Your task to perform on an android device: Clear all items from cart on walmart.com. Add "usb-c" to the cart on walmart.com, then select checkout. Image 0: 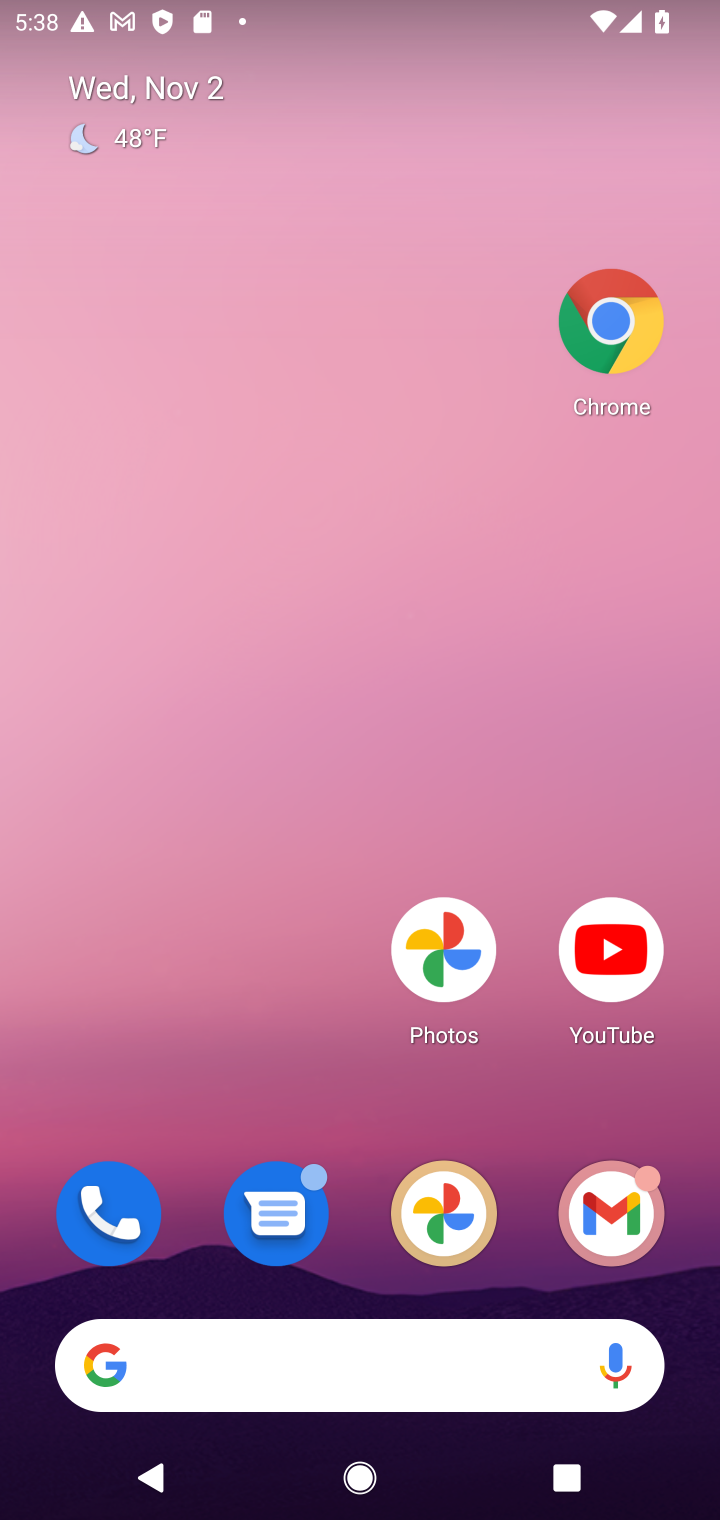
Step 0: drag from (322, 1271) to (333, 640)
Your task to perform on an android device: Clear all items from cart on walmart.com. Add "usb-c" to the cart on walmart.com, then select checkout. Image 1: 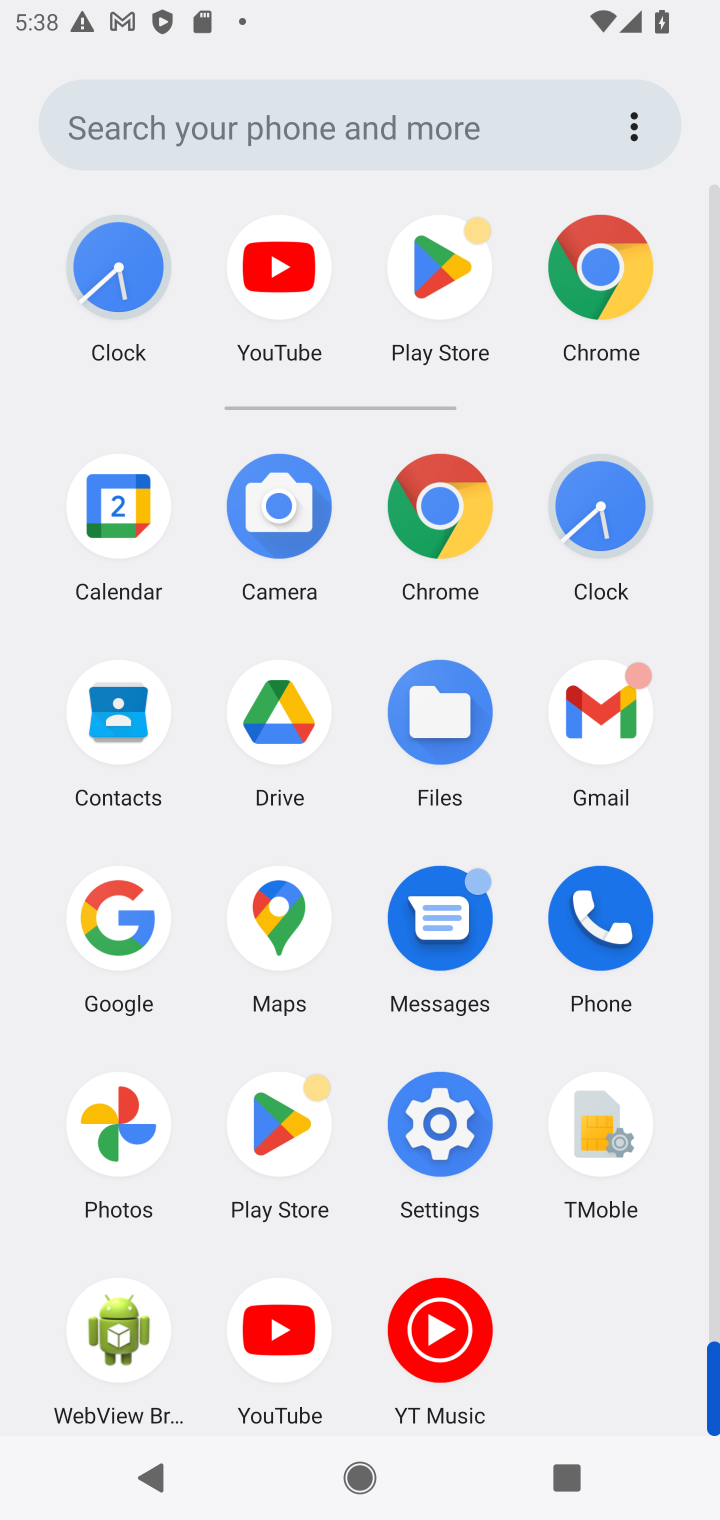
Step 1: click (147, 915)
Your task to perform on an android device: Clear all items from cart on walmart.com. Add "usb-c" to the cart on walmart.com, then select checkout. Image 2: 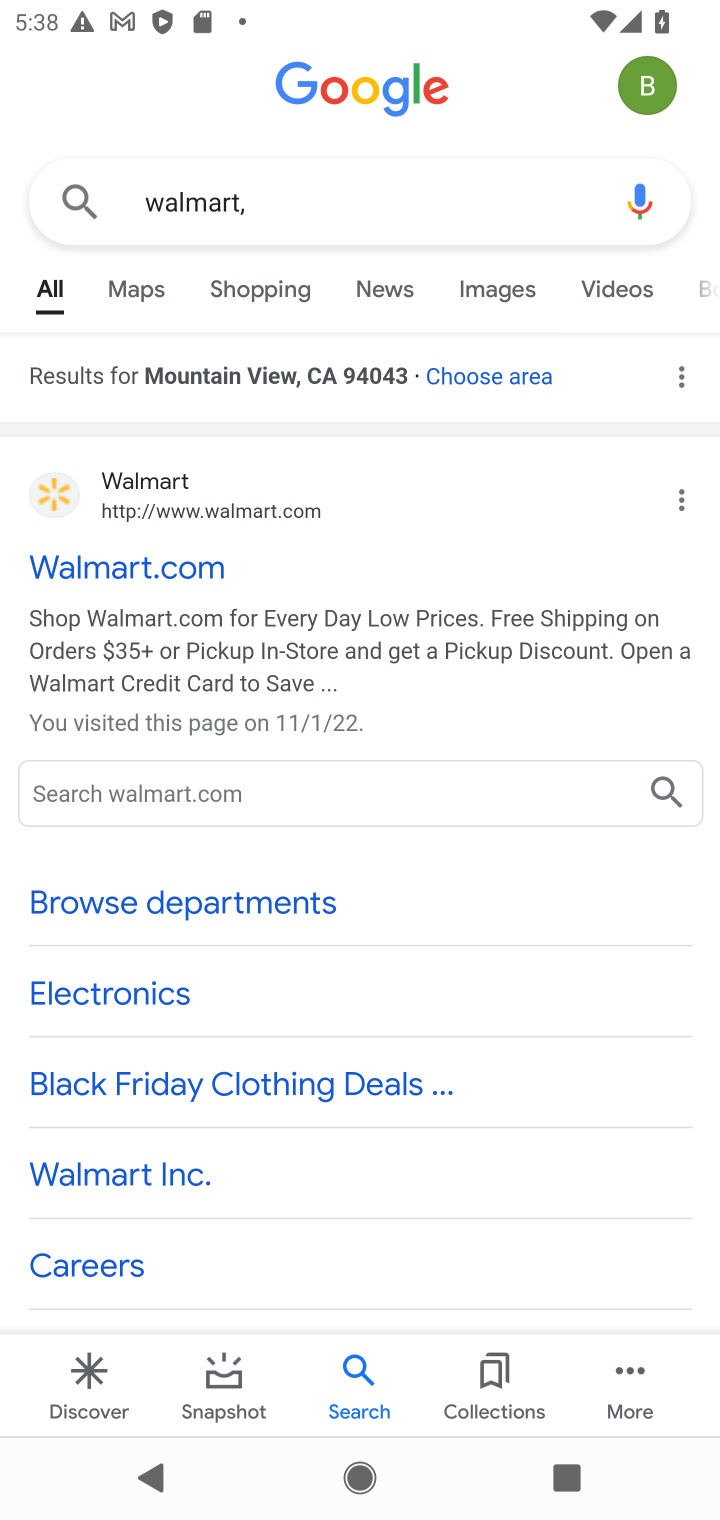
Step 2: click (193, 546)
Your task to perform on an android device: Clear all items from cart on walmart.com. Add "usb-c" to the cart on walmart.com, then select checkout. Image 3: 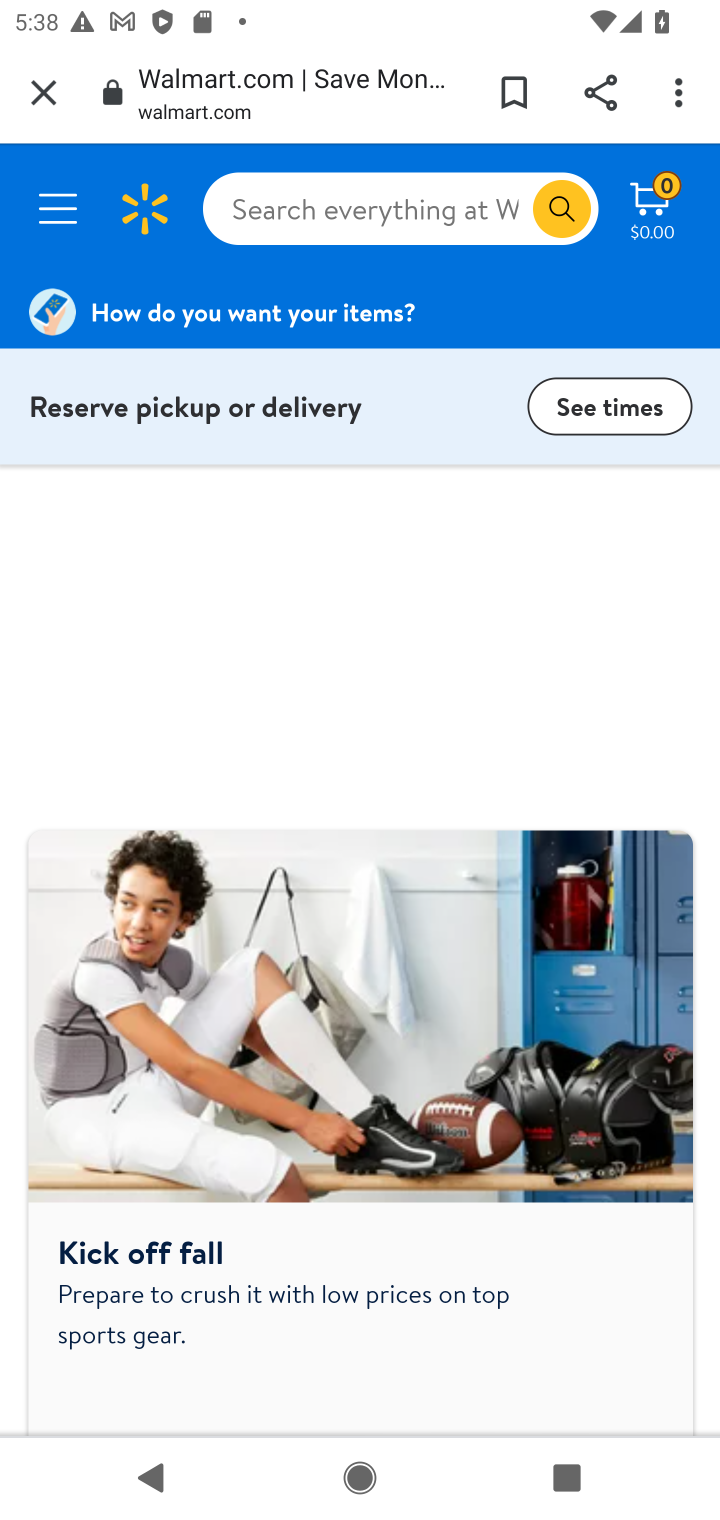
Step 3: click (373, 204)
Your task to perform on an android device: Clear all items from cart on walmart.com. Add "usb-c" to the cart on walmart.com, then select checkout. Image 4: 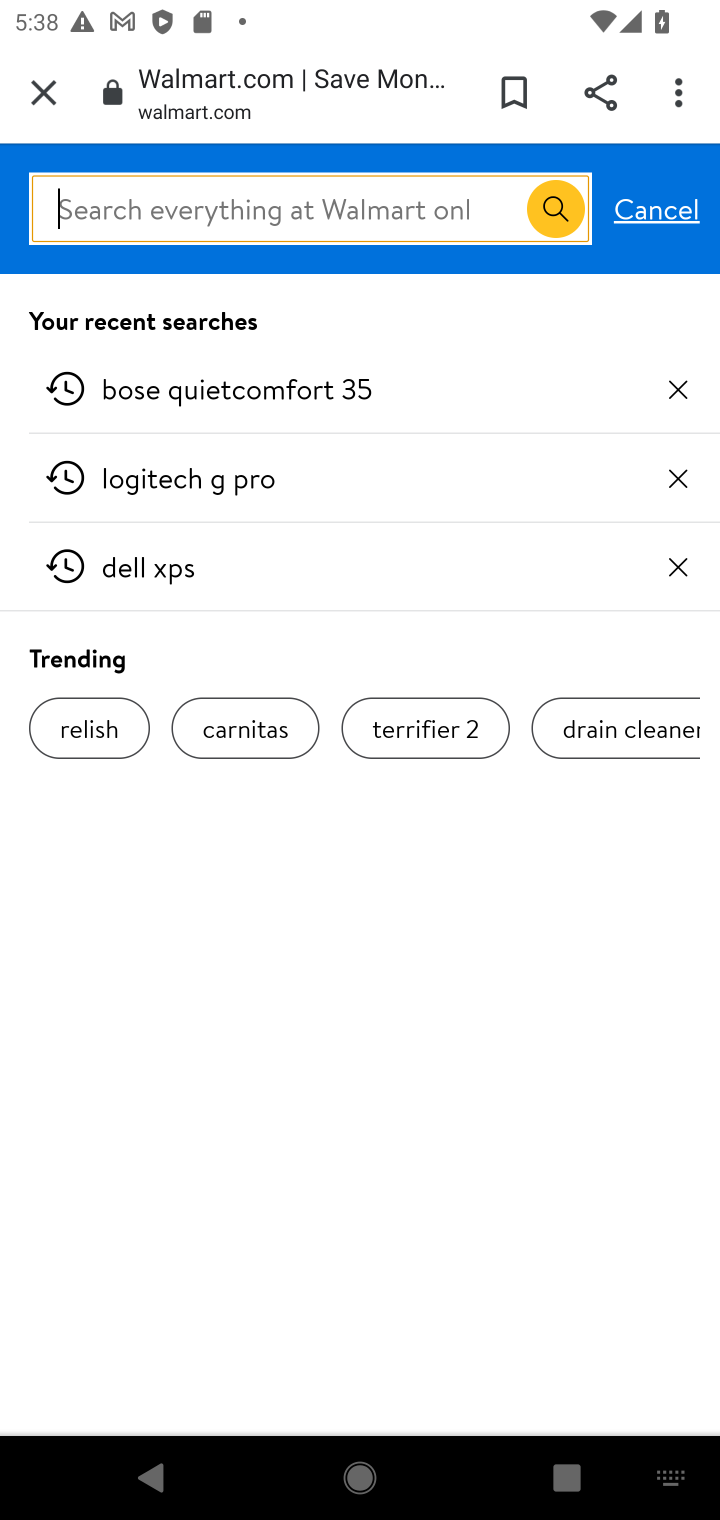
Step 4: type "walmart.com"
Your task to perform on an android device: Clear all items from cart on walmart.com. Add "usb-c" to the cart on walmart.com, then select checkout. Image 5: 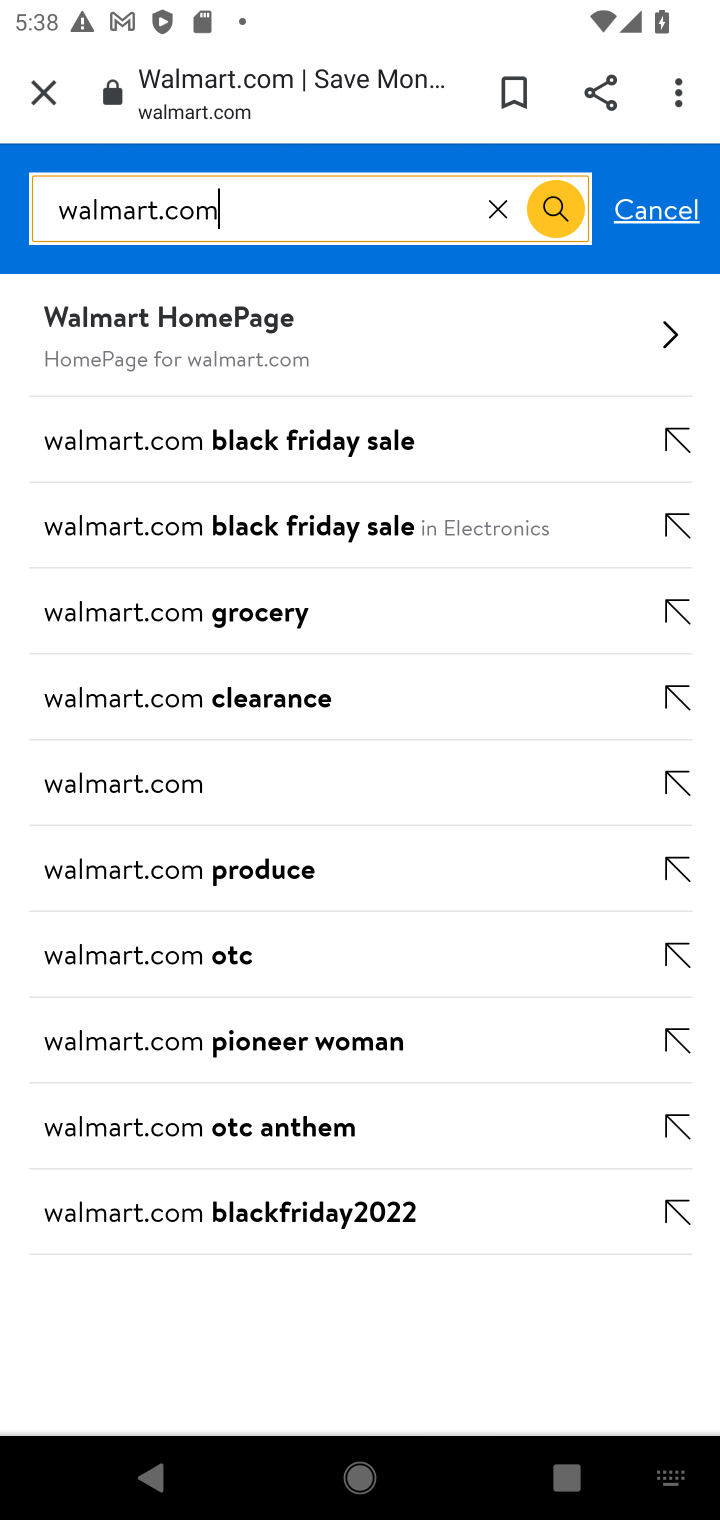
Step 5: click (501, 220)
Your task to perform on an android device: Clear all items from cart on walmart.com. Add "usb-c" to the cart on walmart.com, then select checkout. Image 6: 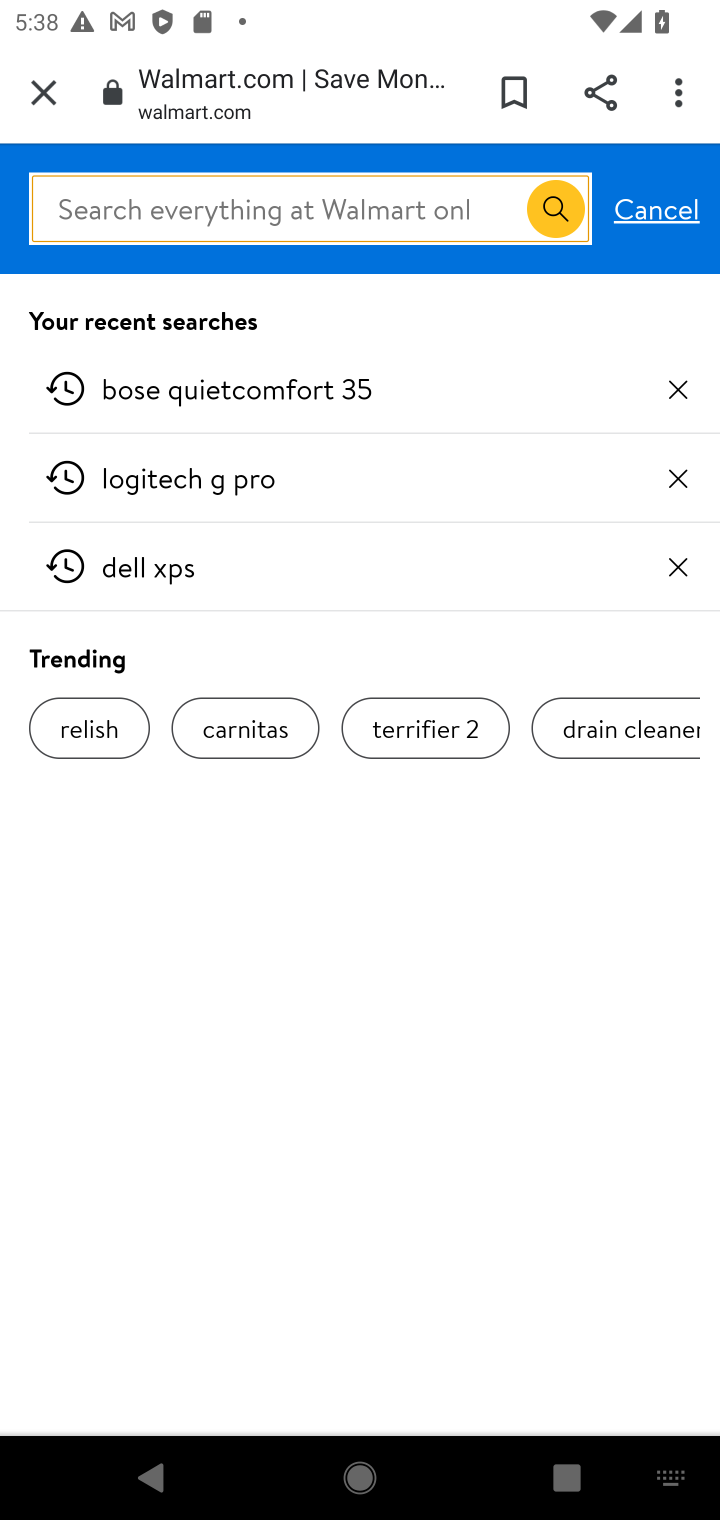
Step 6: type "usb-c"
Your task to perform on an android device: Clear all items from cart on walmart.com. Add "usb-c" to the cart on walmart.com, then select checkout. Image 7: 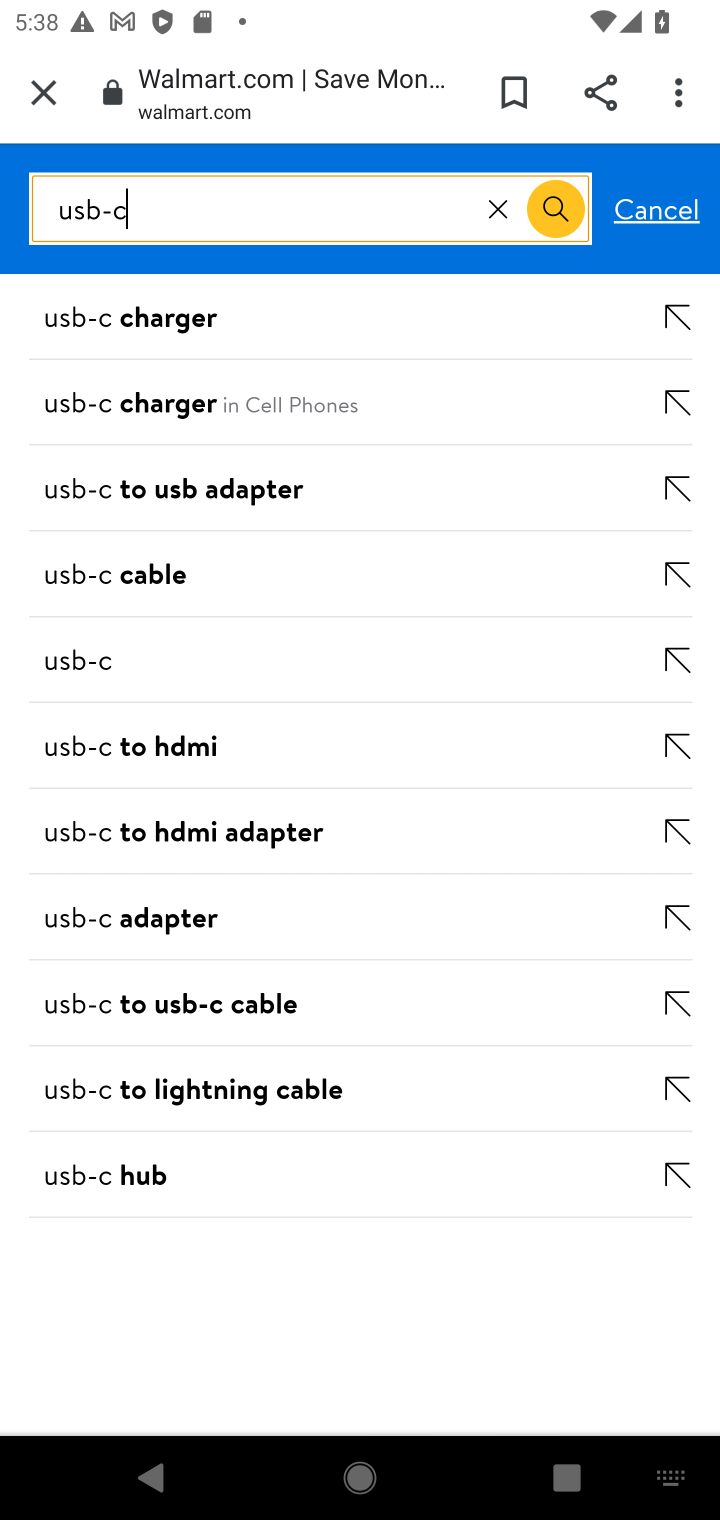
Step 7: click (148, 653)
Your task to perform on an android device: Clear all items from cart on walmart.com. Add "usb-c" to the cart on walmart.com, then select checkout. Image 8: 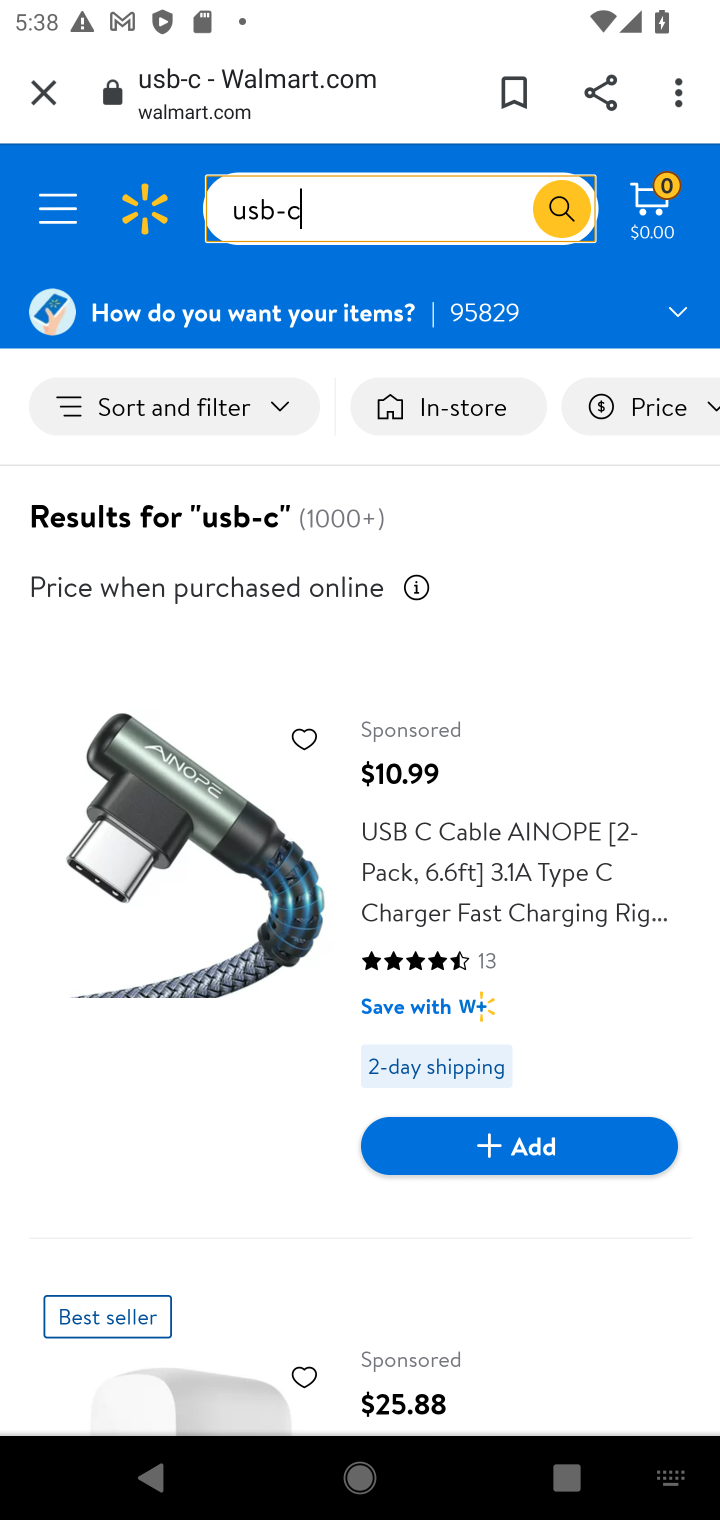
Step 8: click (520, 1146)
Your task to perform on an android device: Clear all items from cart on walmart.com. Add "usb-c" to the cart on walmart.com, then select checkout. Image 9: 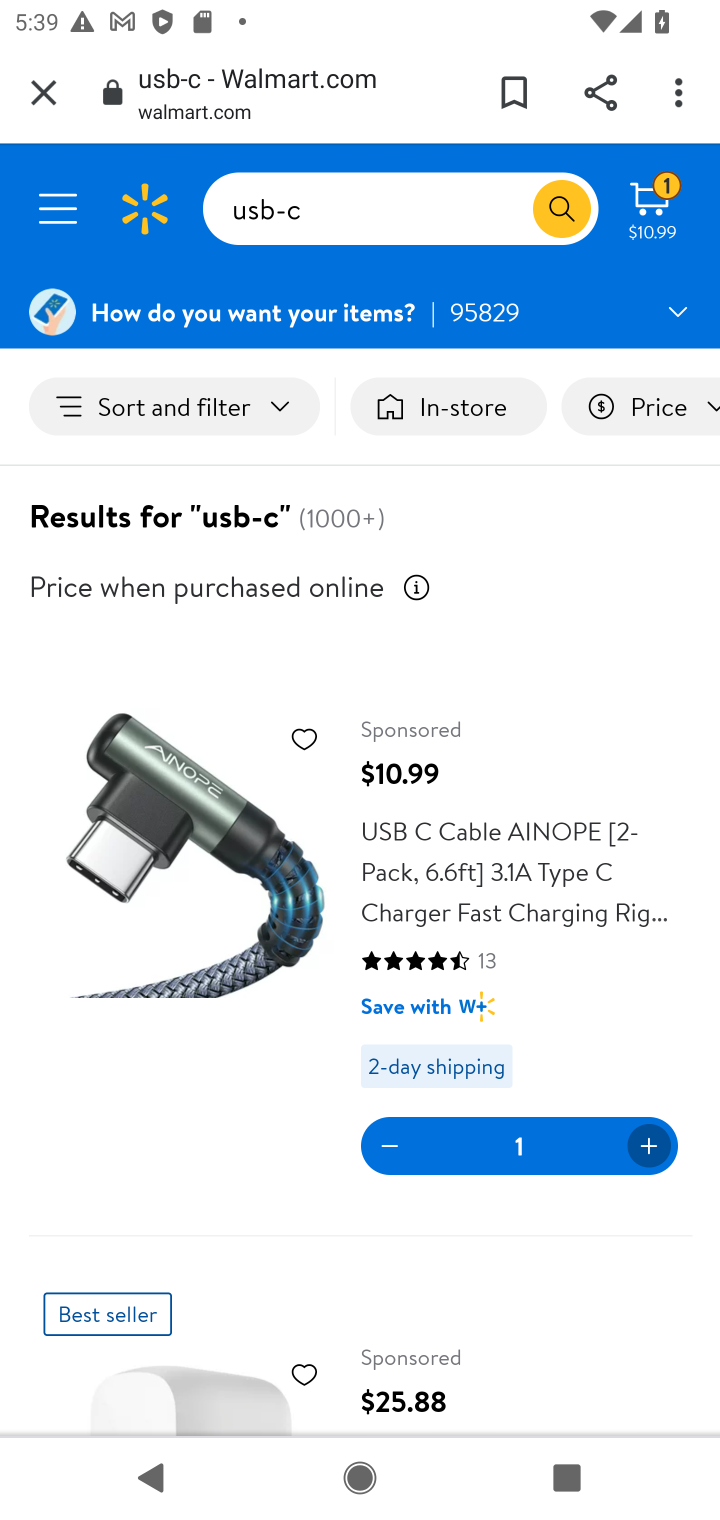
Step 9: click (661, 222)
Your task to perform on an android device: Clear all items from cart on walmart.com. Add "usb-c" to the cart on walmart.com, then select checkout. Image 10: 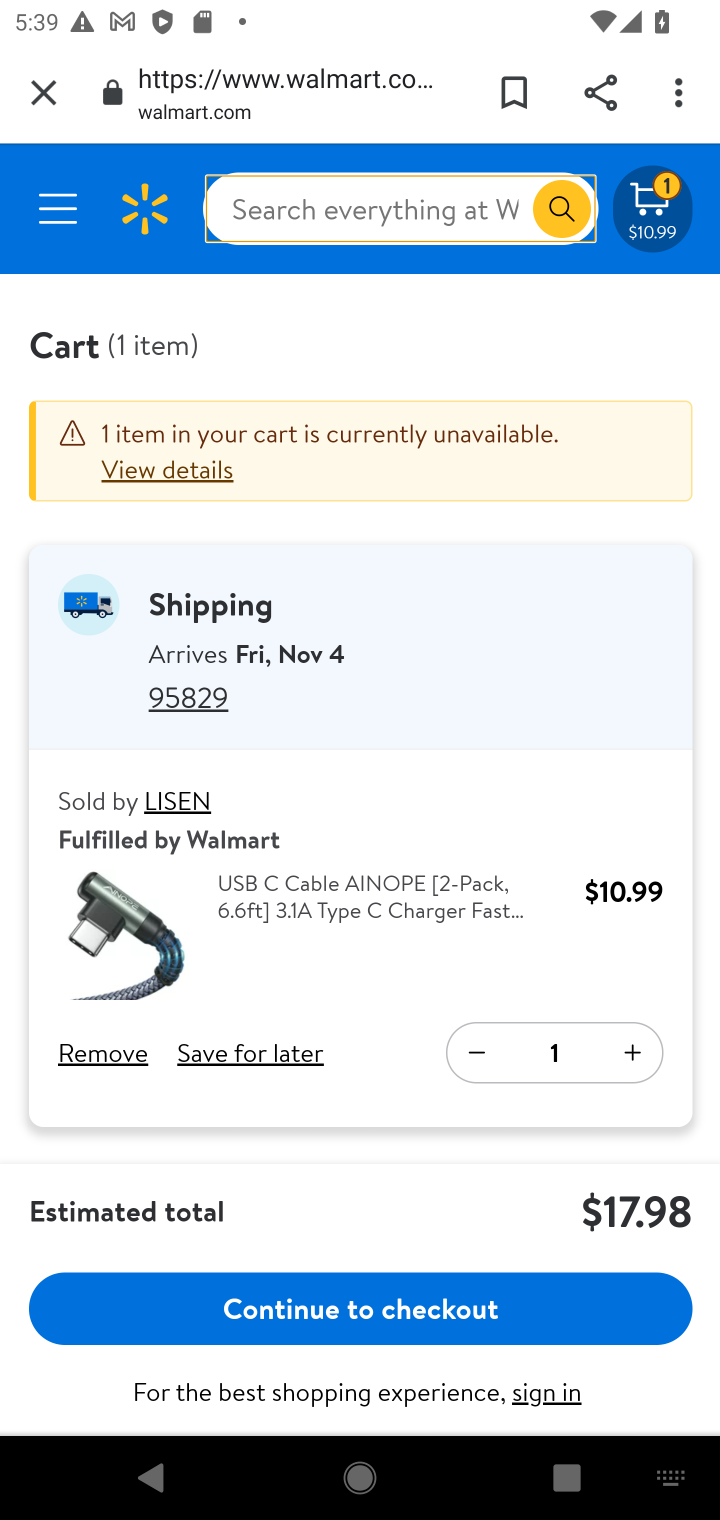
Step 10: click (422, 1299)
Your task to perform on an android device: Clear all items from cart on walmart.com. Add "usb-c" to the cart on walmart.com, then select checkout. Image 11: 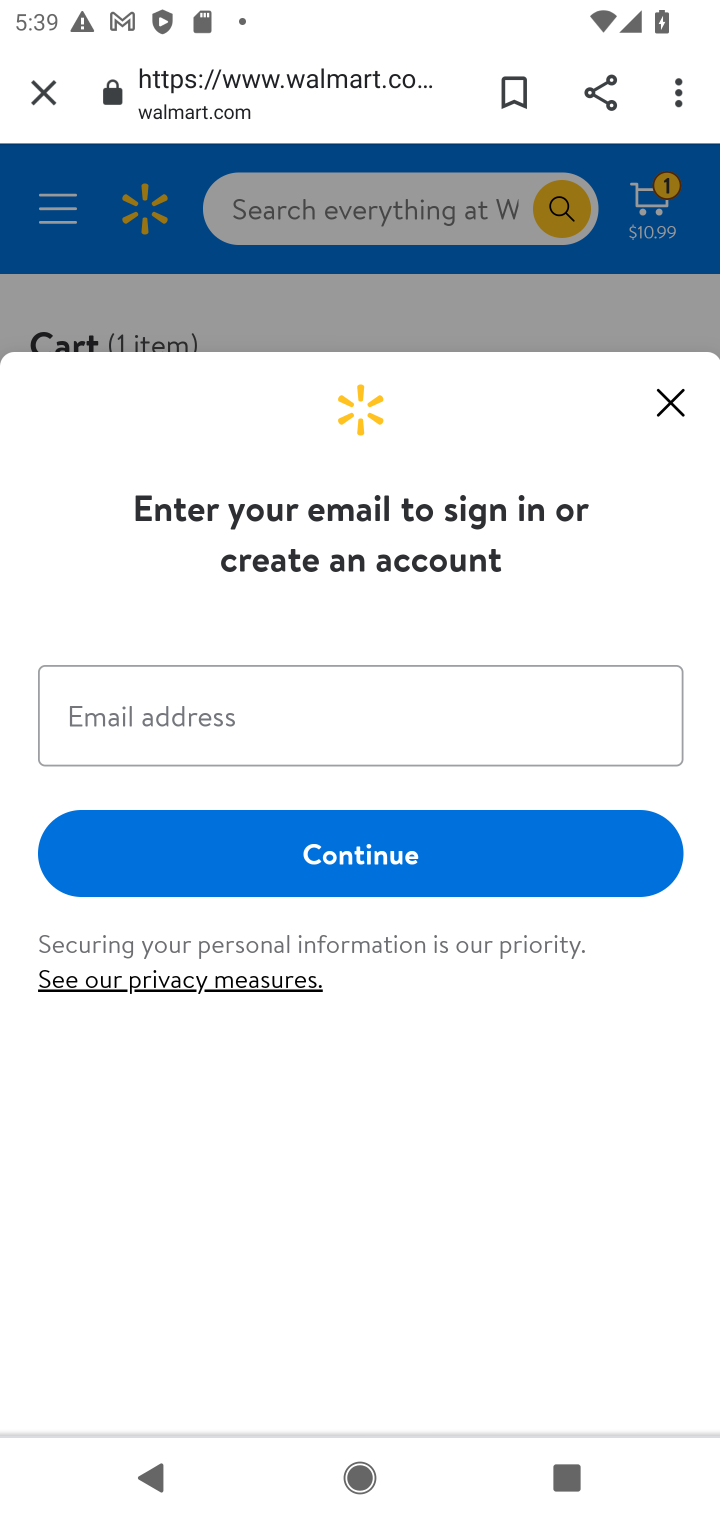
Step 11: task complete